Your task to perform on an android device: Open calendar and show me the third week of next month Image 0: 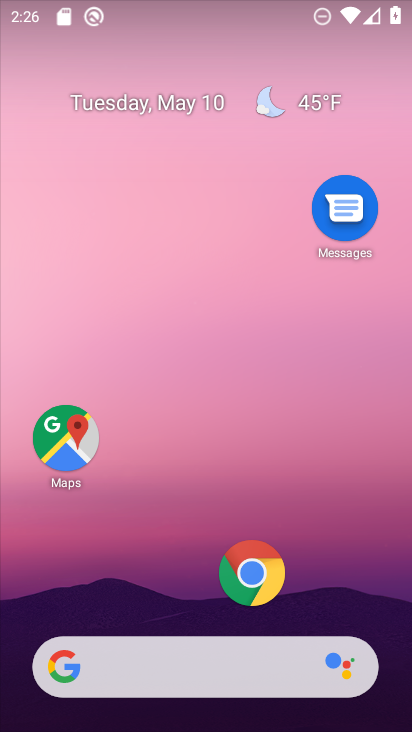
Step 0: drag from (212, 578) to (242, 230)
Your task to perform on an android device: Open calendar and show me the third week of next month Image 1: 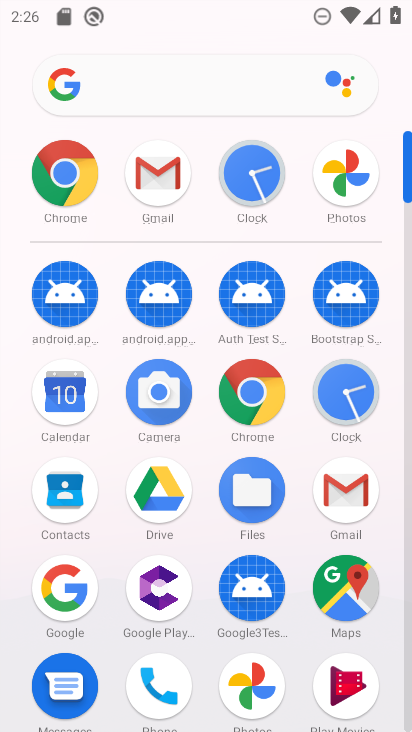
Step 1: click (67, 387)
Your task to perform on an android device: Open calendar and show me the third week of next month Image 2: 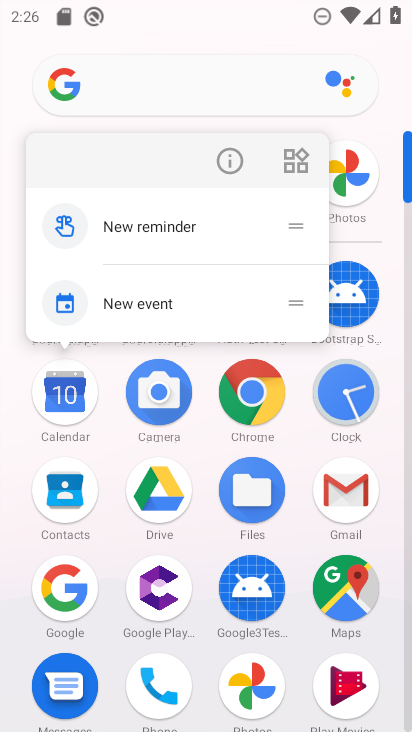
Step 2: click (237, 160)
Your task to perform on an android device: Open calendar and show me the third week of next month Image 3: 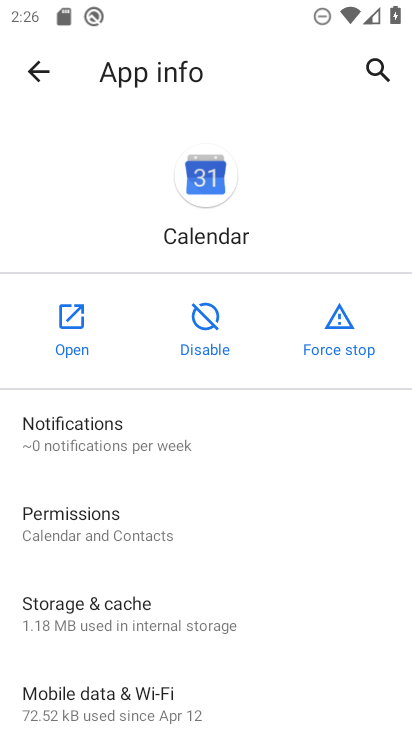
Step 3: click (69, 311)
Your task to perform on an android device: Open calendar and show me the third week of next month Image 4: 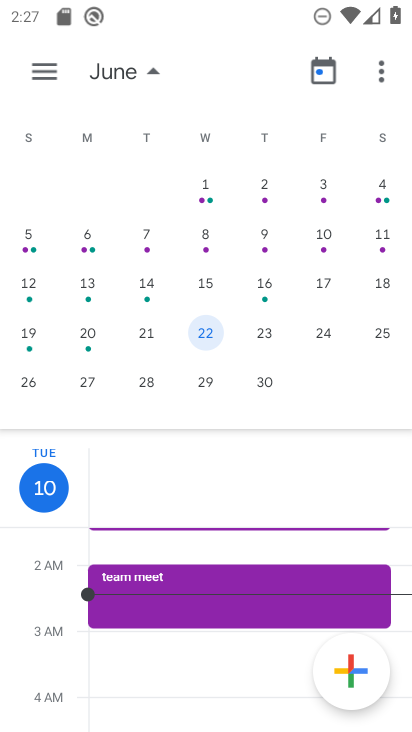
Step 4: click (211, 272)
Your task to perform on an android device: Open calendar and show me the third week of next month Image 5: 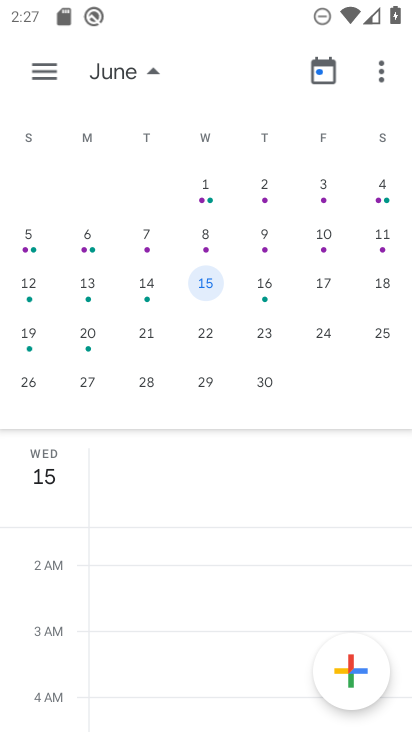
Step 5: click (208, 273)
Your task to perform on an android device: Open calendar and show me the third week of next month Image 6: 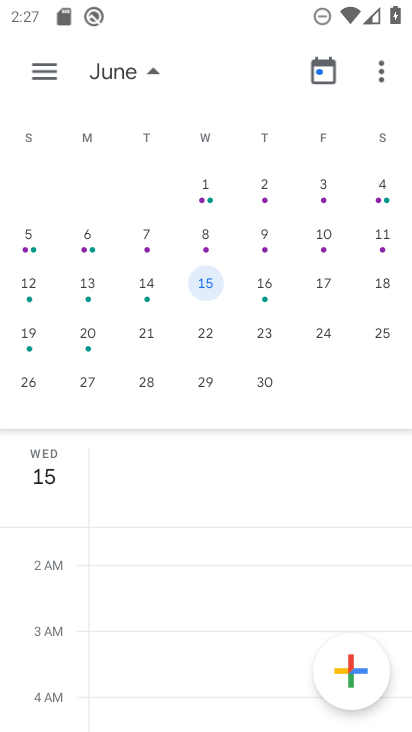
Step 6: task complete